Your task to perform on an android device: Go to ESPN.com Image 0: 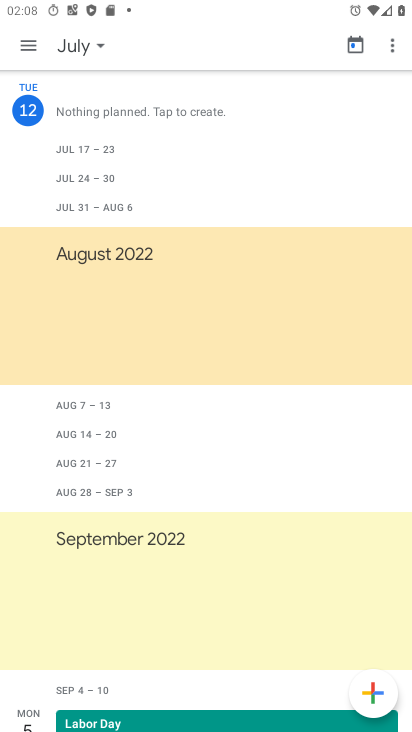
Step 0: press home button
Your task to perform on an android device: Go to ESPN.com Image 1: 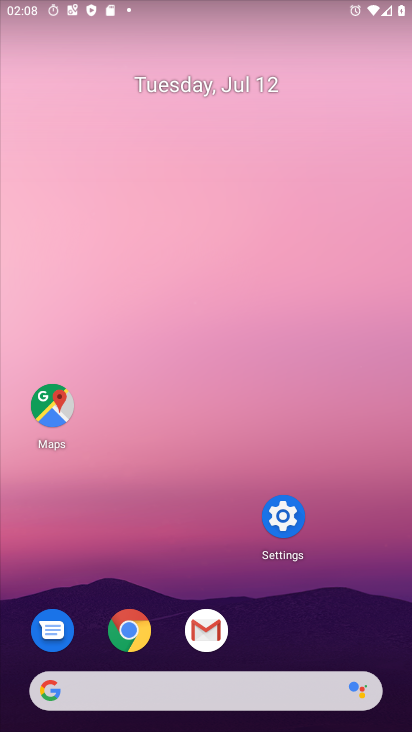
Step 1: click (126, 638)
Your task to perform on an android device: Go to ESPN.com Image 2: 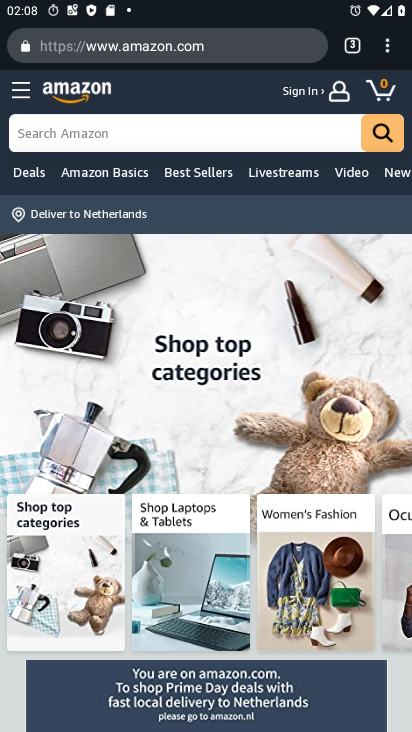
Step 2: click (170, 44)
Your task to perform on an android device: Go to ESPN.com Image 3: 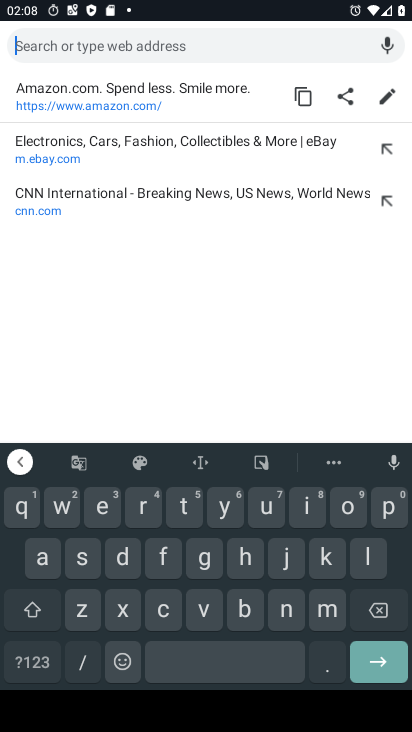
Step 3: click (100, 507)
Your task to perform on an android device: Go to ESPN.com Image 4: 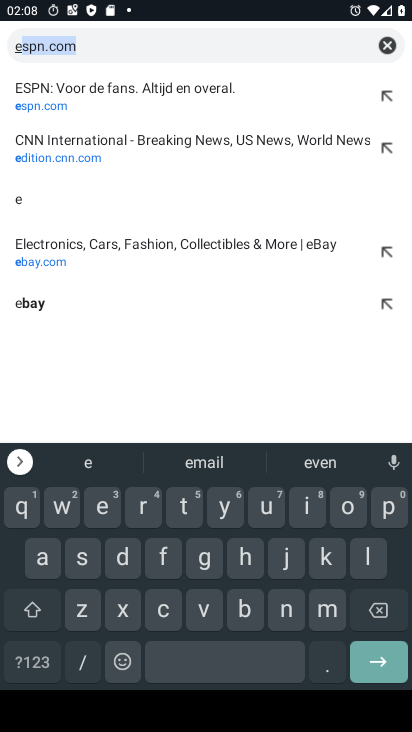
Step 4: click (81, 567)
Your task to perform on an android device: Go to ESPN.com Image 5: 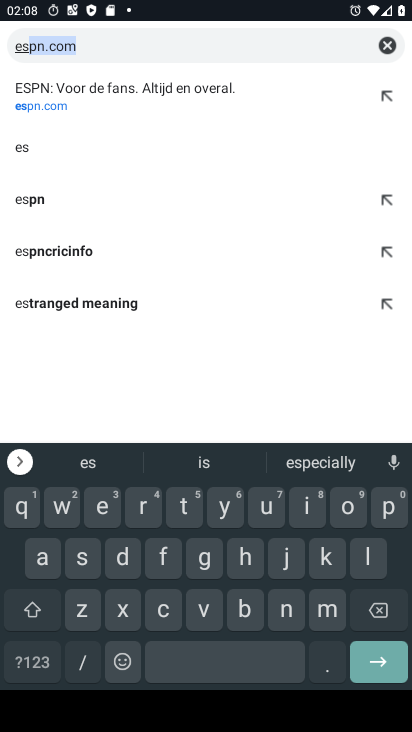
Step 5: click (105, 48)
Your task to perform on an android device: Go to ESPN.com Image 6: 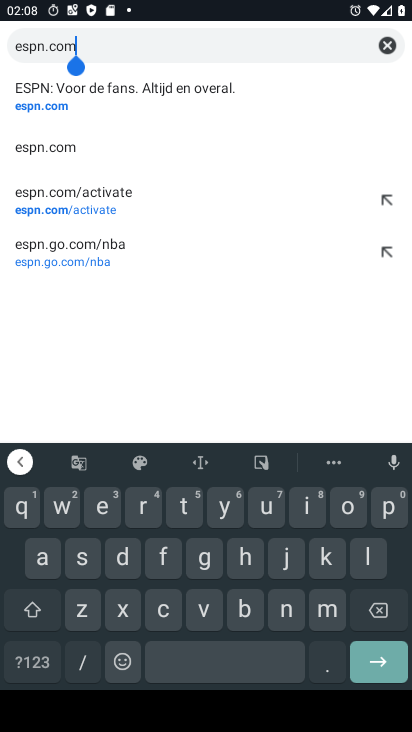
Step 6: click (384, 669)
Your task to perform on an android device: Go to ESPN.com Image 7: 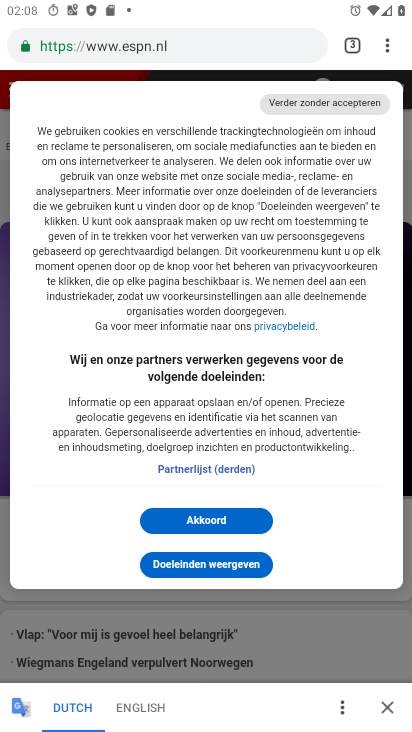
Step 7: click (201, 523)
Your task to perform on an android device: Go to ESPN.com Image 8: 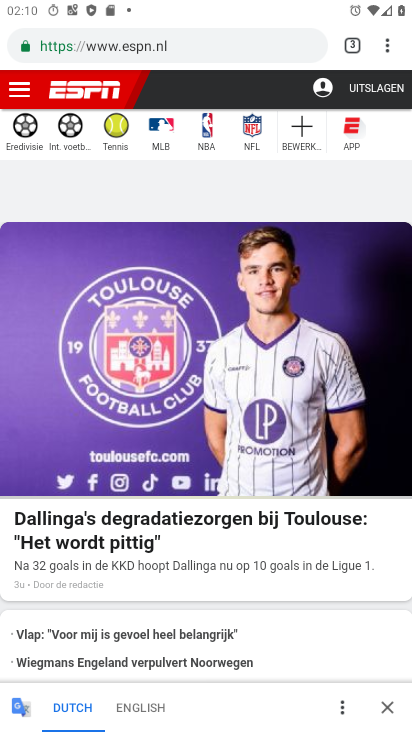
Step 8: task complete